Your task to perform on an android device: turn on priority inbox in the gmail app Image 0: 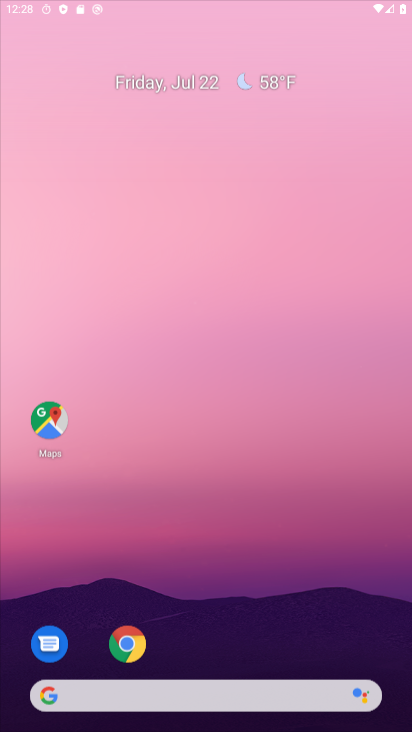
Step 0: drag from (233, 277) to (292, 89)
Your task to perform on an android device: turn on priority inbox in the gmail app Image 1: 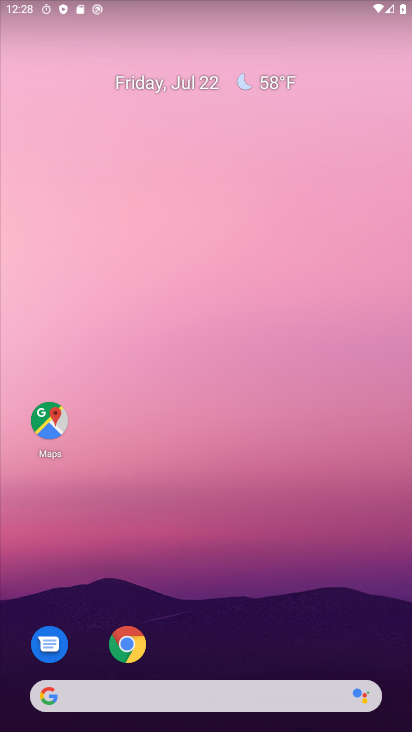
Step 1: drag from (217, 629) to (269, 169)
Your task to perform on an android device: turn on priority inbox in the gmail app Image 2: 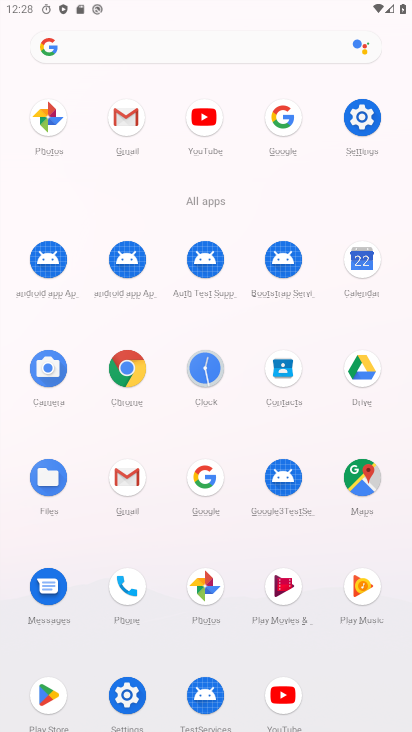
Step 2: click (121, 475)
Your task to perform on an android device: turn on priority inbox in the gmail app Image 3: 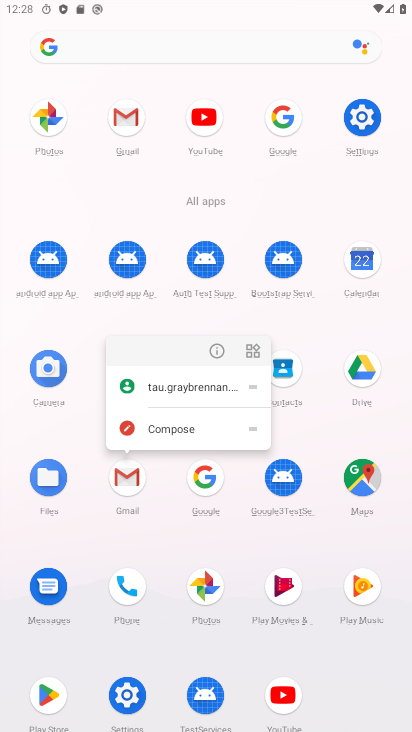
Step 3: click (224, 353)
Your task to perform on an android device: turn on priority inbox in the gmail app Image 4: 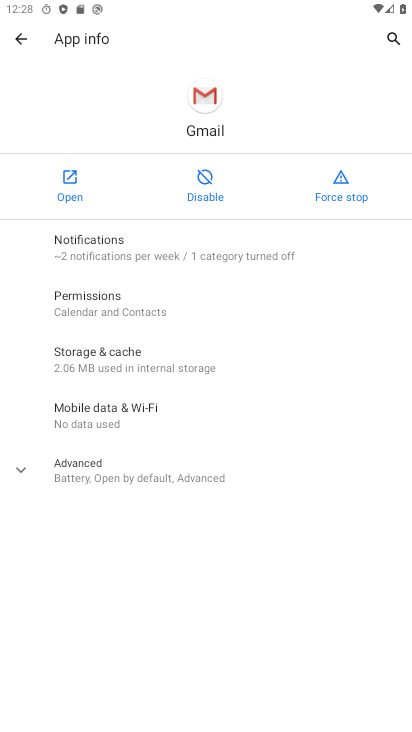
Step 4: click (69, 181)
Your task to perform on an android device: turn on priority inbox in the gmail app Image 5: 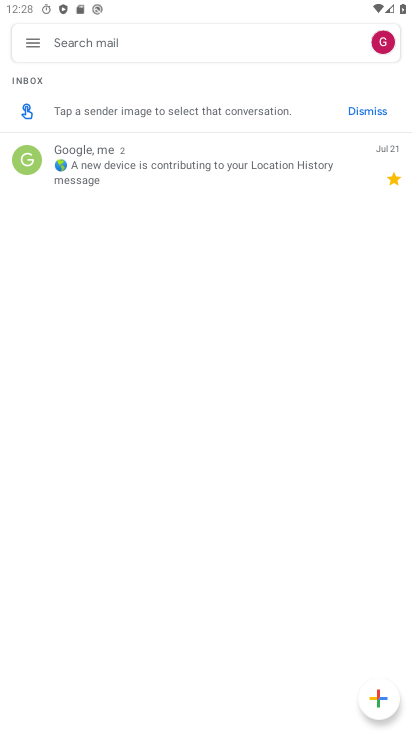
Step 5: click (31, 51)
Your task to perform on an android device: turn on priority inbox in the gmail app Image 6: 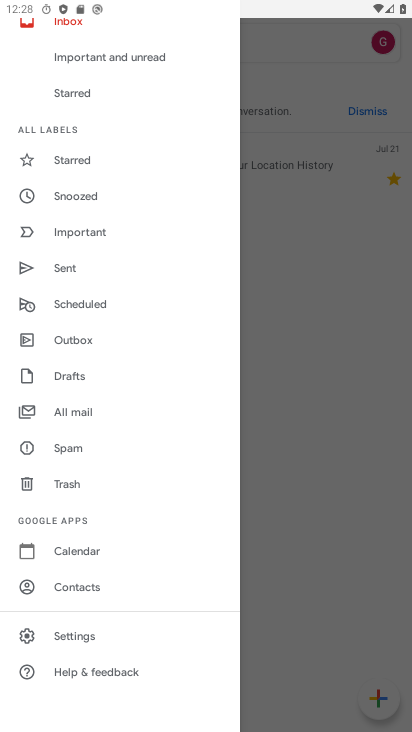
Step 6: click (76, 641)
Your task to perform on an android device: turn on priority inbox in the gmail app Image 7: 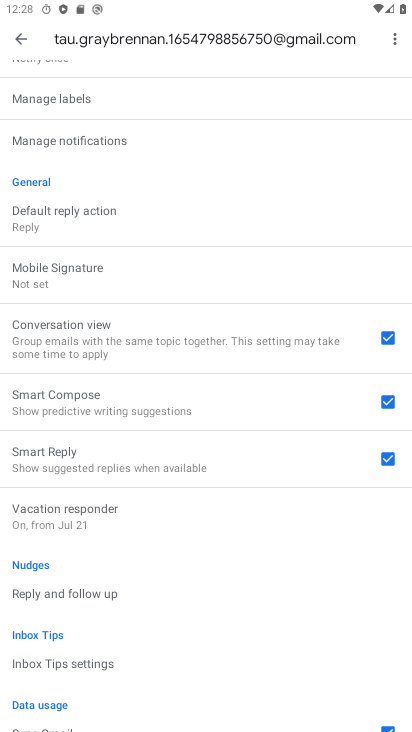
Step 7: drag from (93, 211) to (261, 710)
Your task to perform on an android device: turn on priority inbox in the gmail app Image 8: 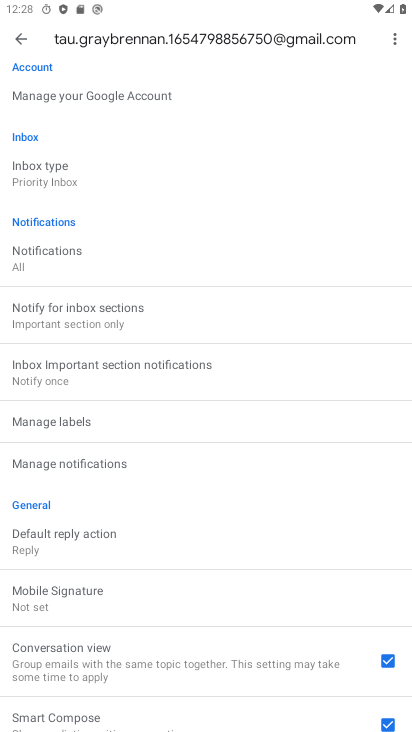
Step 8: click (70, 184)
Your task to perform on an android device: turn on priority inbox in the gmail app Image 9: 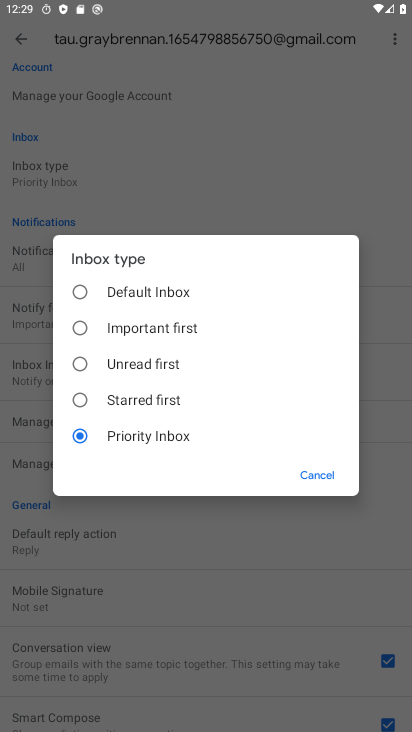
Step 9: task complete